Your task to perform on an android device: empty trash in the gmail app Image 0: 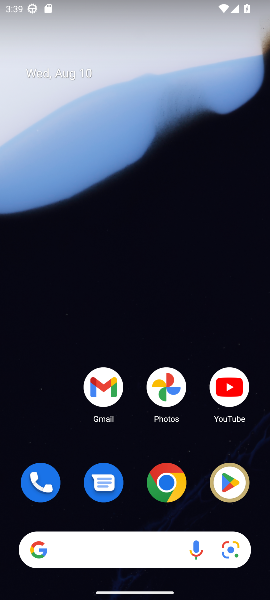
Step 0: drag from (143, 502) to (136, 73)
Your task to perform on an android device: empty trash in the gmail app Image 1: 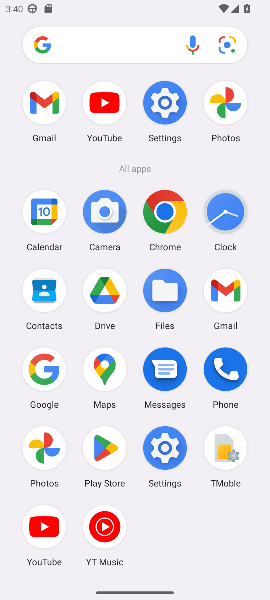
Step 1: click (232, 289)
Your task to perform on an android device: empty trash in the gmail app Image 2: 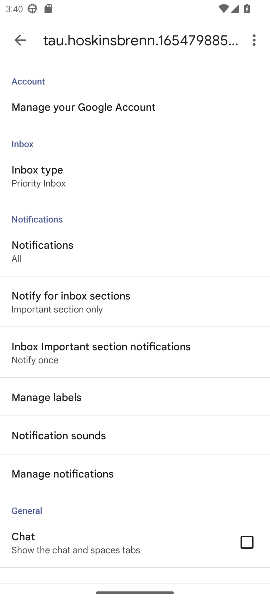
Step 2: drag from (159, 483) to (144, 200)
Your task to perform on an android device: empty trash in the gmail app Image 3: 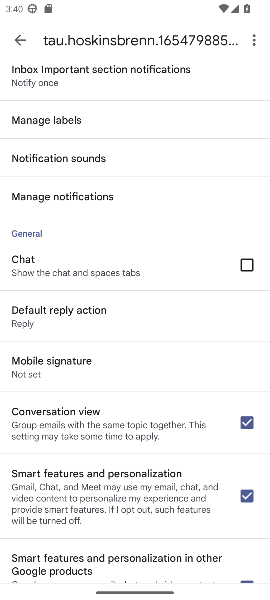
Step 3: drag from (138, 164) to (131, 488)
Your task to perform on an android device: empty trash in the gmail app Image 4: 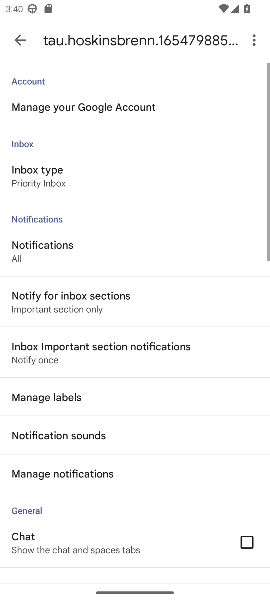
Step 4: click (17, 36)
Your task to perform on an android device: empty trash in the gmail app Image 5: 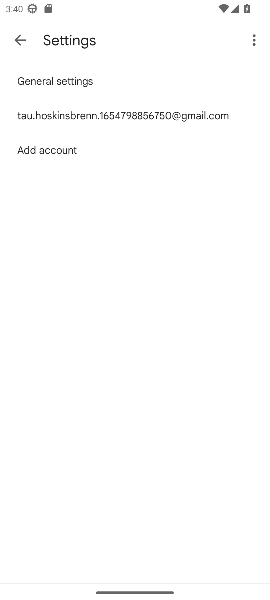
Step 5: click (17, 36)
Your task to perform on an android device: empty trash in the gmail app Image 6: 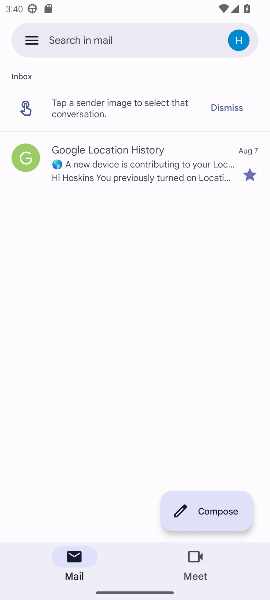
Step 6: click (25, 32)
Your task to perform on an android device: empty trash in the gmail app Image 7: 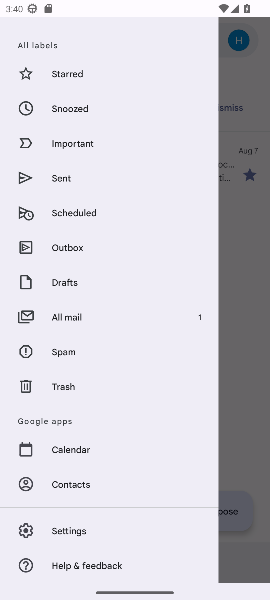
Step 7: click (60, 382)
Your task to perform on an android device: empty trash in the gmail app Image 8: 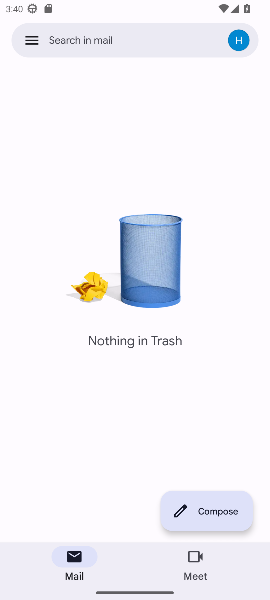
Step 8: task complete